Your task to perform on an android device: View the shopping cart on walmart.com. Add macbook pro 15 inch to the cart on walmart.com, then select checkout. Image 0: 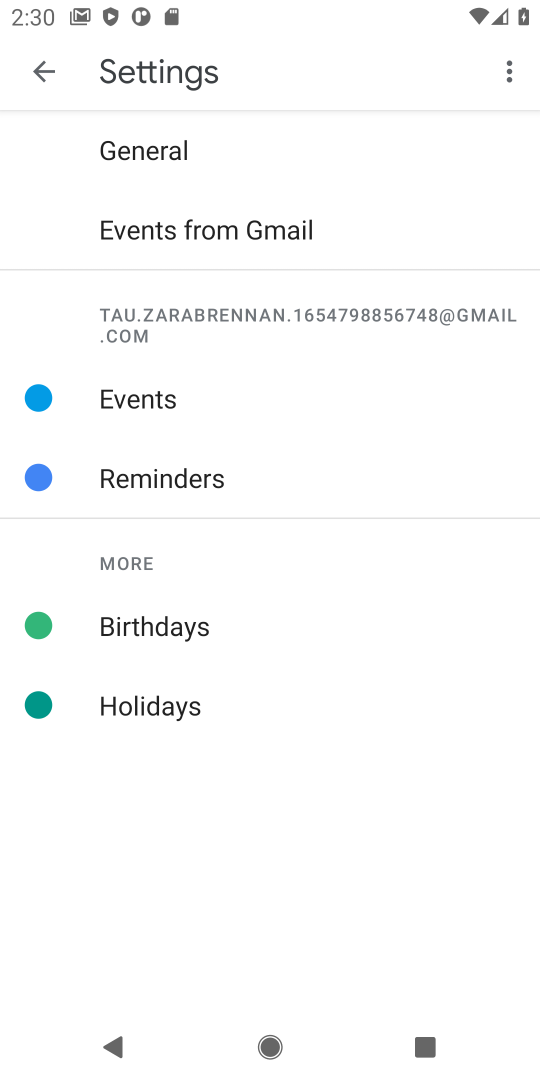
Step 0: press home button
Your task to perform on an android device: View the shopping cart on walmart.com. Add macbook pro 15 inch to the cart on walmart.com, then select checkout. Image 1: 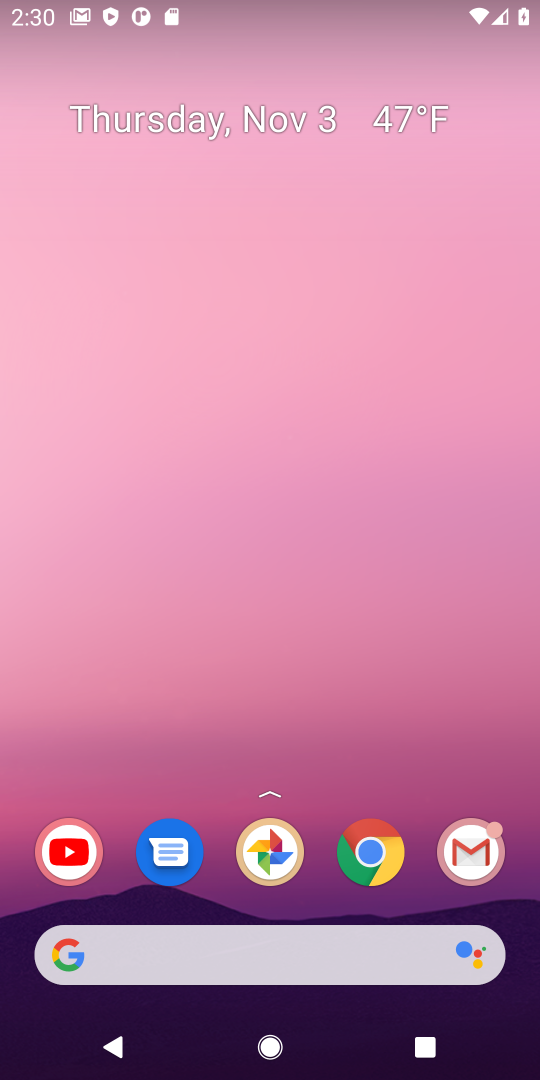
Step 1: click (370, 854)
Your task to perform on an android device: View the shopping cart on walmart.com. Add macbook pro 15 inch to the cart on walmart.com, then select checkout. Image 2: 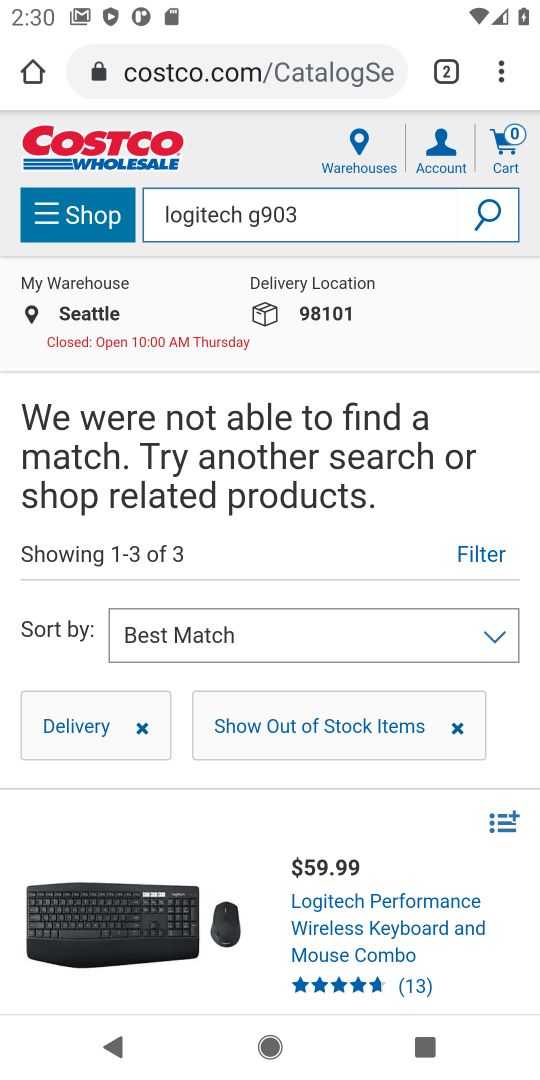
Step 2: click (226, 74)
Your task to perform on an android device: View the shopping cart on walmart.com. Add macbook pro 15 inch to the cart on walmart.com, then select checkout. Image 3: 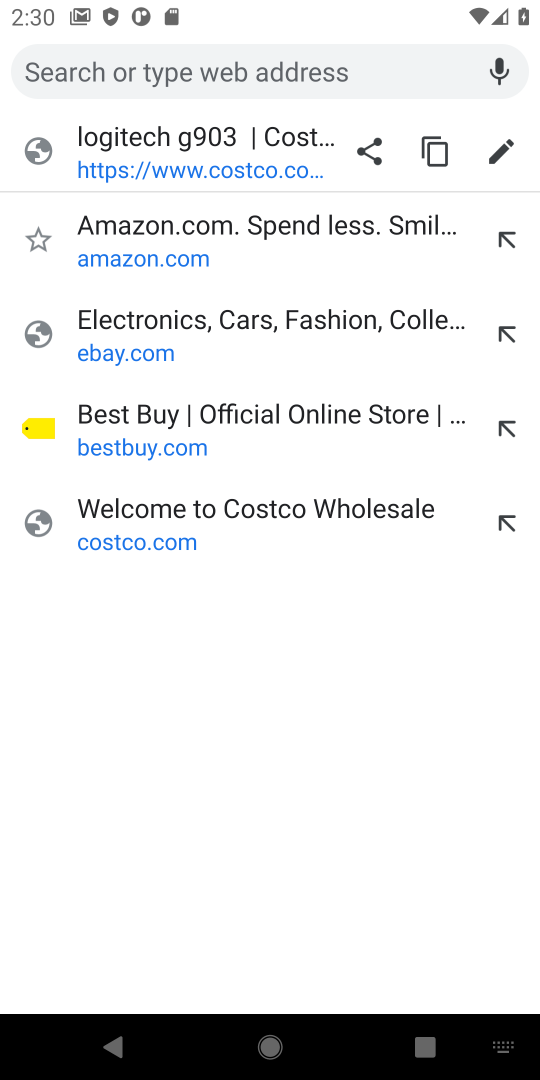
Step 3: type "walmart.com"
Your task to perform on an android device: View the shopping cart on walmart.com. Add macbook pro 15 inch to the cart on walmart.com, then select checkout. Image 4: 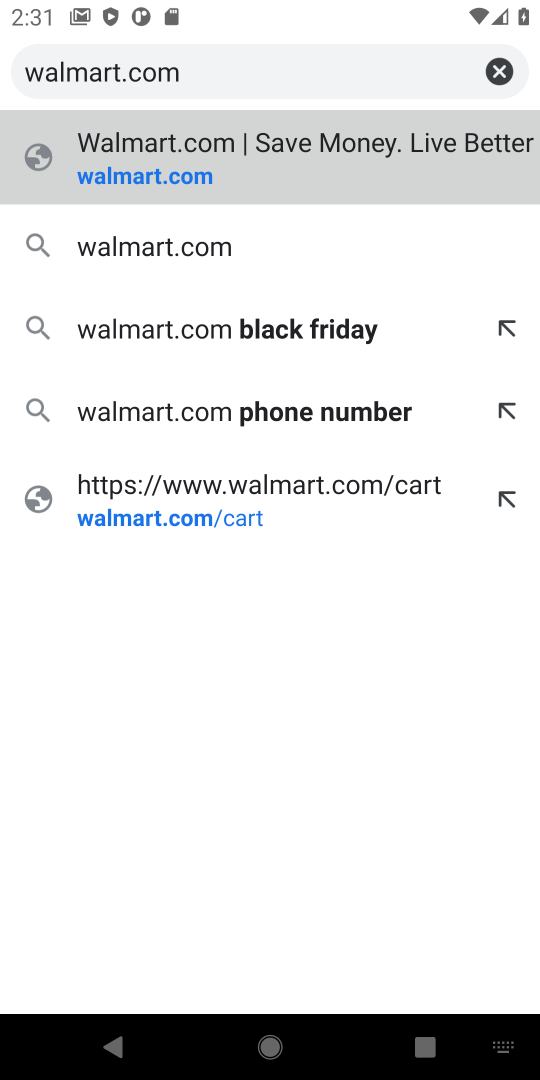
Step 4: click (111, 173)
Your task to perform on an android device: View the shopping cart on walmart.com. Add macbook pro 15 inch to the cart on walmart.com, then select checkout. Image 5: 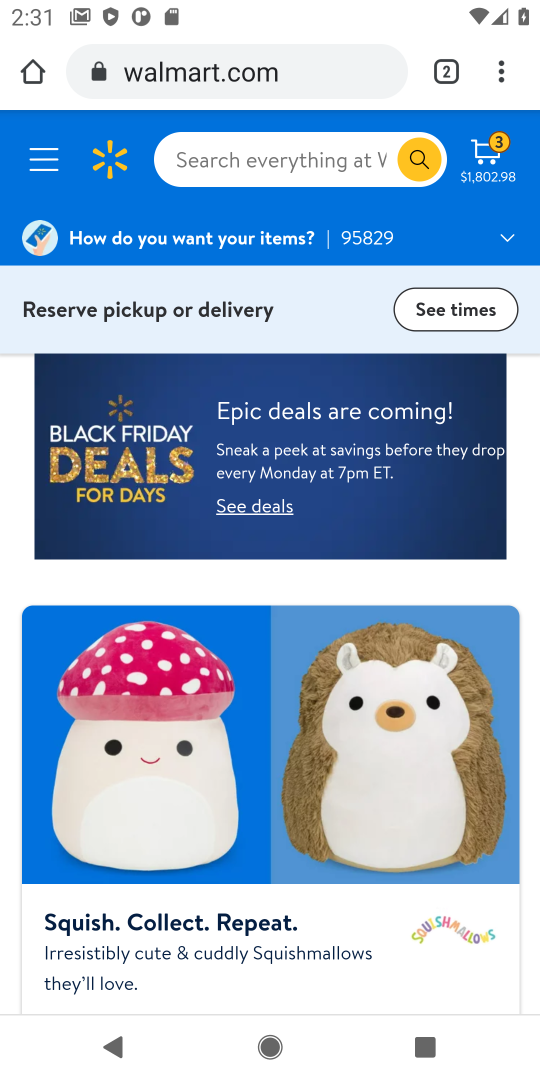
Step 5: click (490, 171)
Your task to perform on an android device: View the shopping cart on walmart.com. Add macbook pro 15 inch to the cart on walmart.com, then select checkout. Image 6: 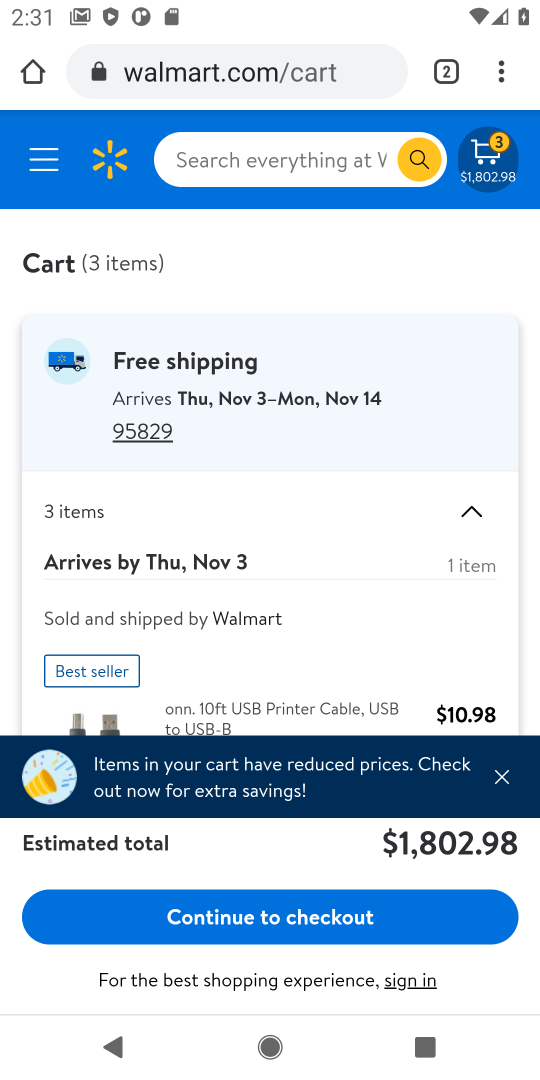
Step 6: click (275, 166)
Your task to perform on an android device: View the shopping cart on walmart.com. Add macbook pro 15 inch to the cart on walmart.com, then select checkout. Image 7: 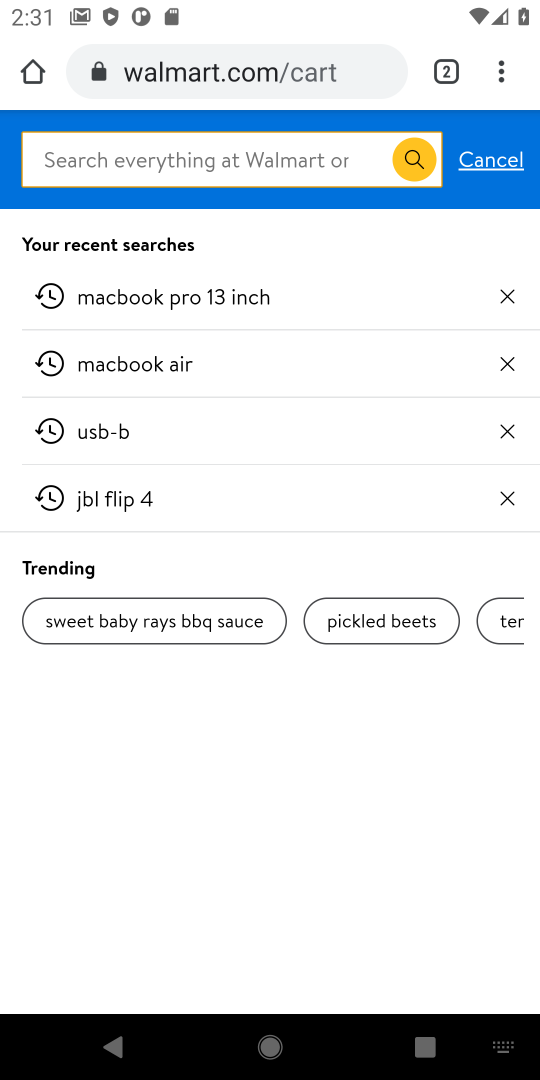
Step 7: type "macbook pro 15 inch"
Your task to perform on an android device: View the shopping cart on walmart.com. Add macbook pro 15 inch to the cart on walmart.com, then select checkout. Image 8: 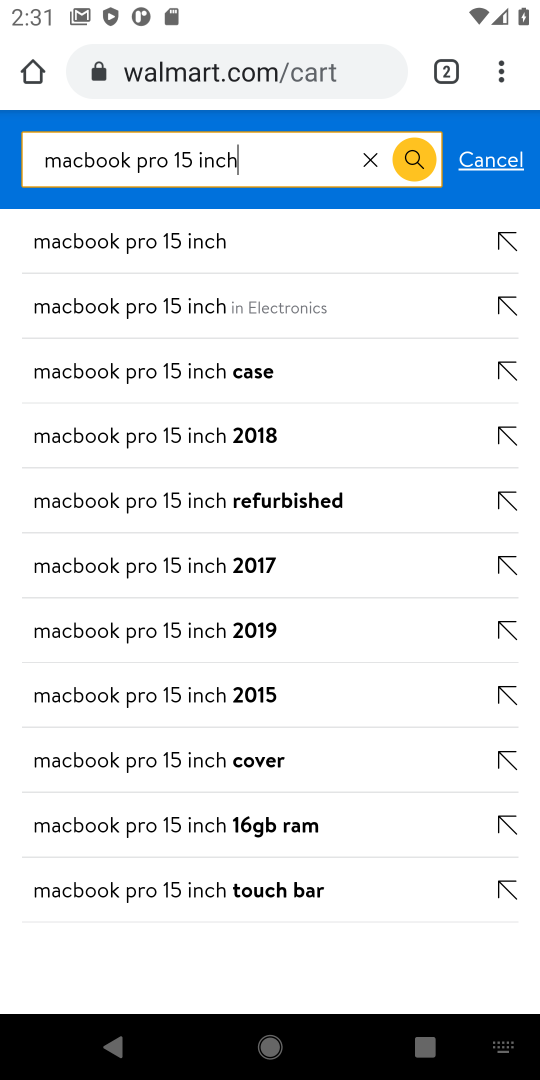
Step 8: click (141, 245)
Your task to perform on an android device: View the shopping cart on walmart.com. Add macbook pro 15 inch to the cart on walmart.com, then select checkout. Image 9: 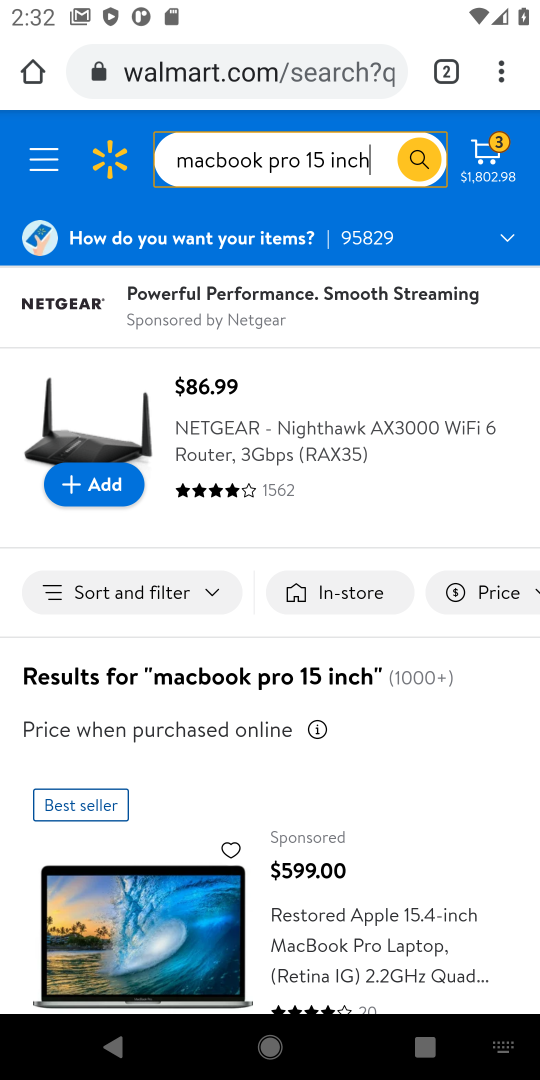
Step 9: drag from (234, 776) to (224, 445)
Your task to perform on an android device: View the shopping cart on walmart.com. Add macbook pro 15 inch to the cart on walmart.com, then select checkout. Image 10: 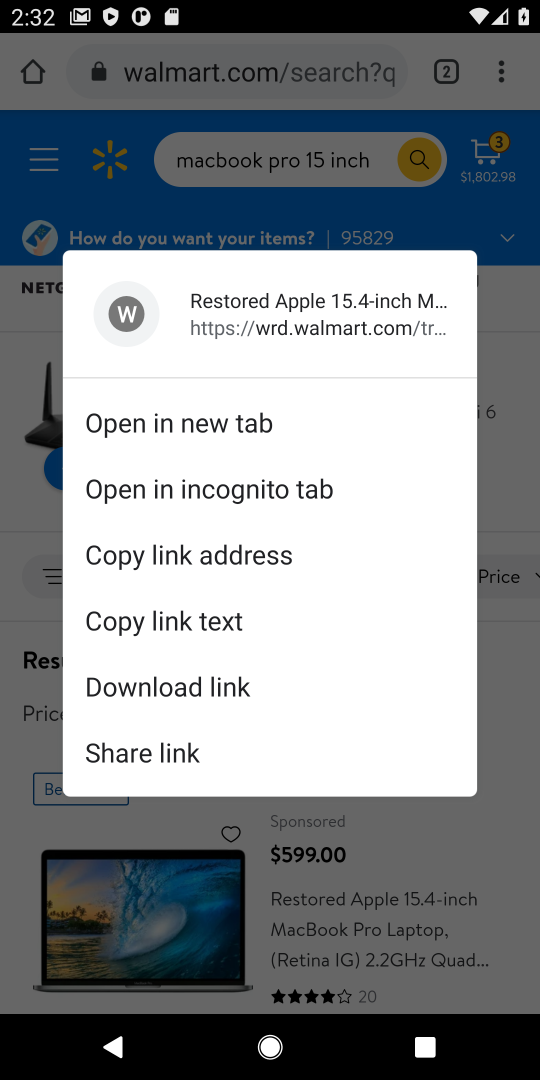
Step 10: click (535, 745)
Your task to perform on an android device: View the shopping cart on walmart.com. Add macbook pro 15 inch to the cart on walmart.com, then select checkout. Image 11: 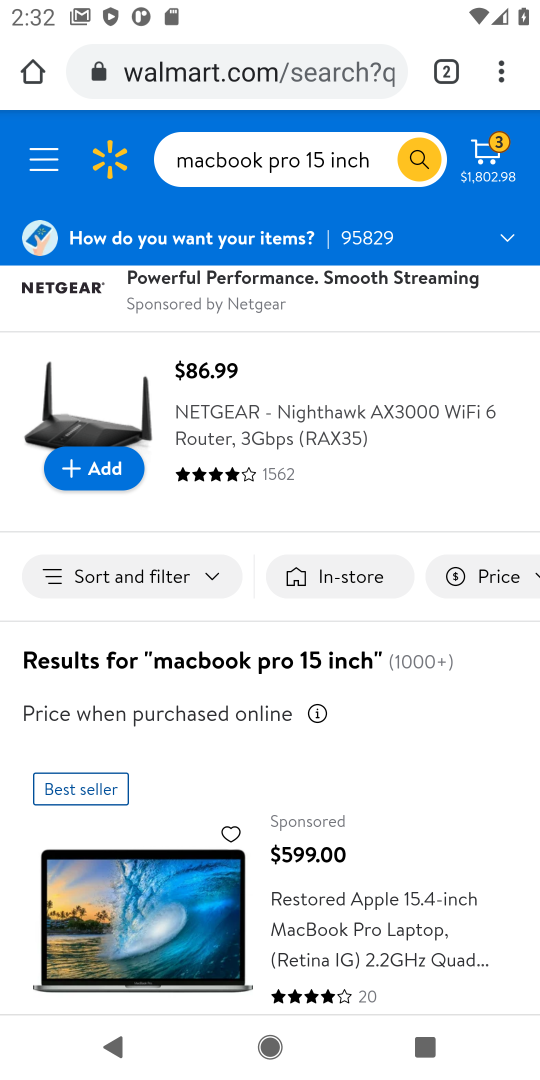
Step 11: drag from (361, 826) to (358, 369)
Your task to perform on an android device: View the shopping cart on walmart.com. Add macbook pro 15 inch to the cart on walmart.com, then select checkout. Image 12: 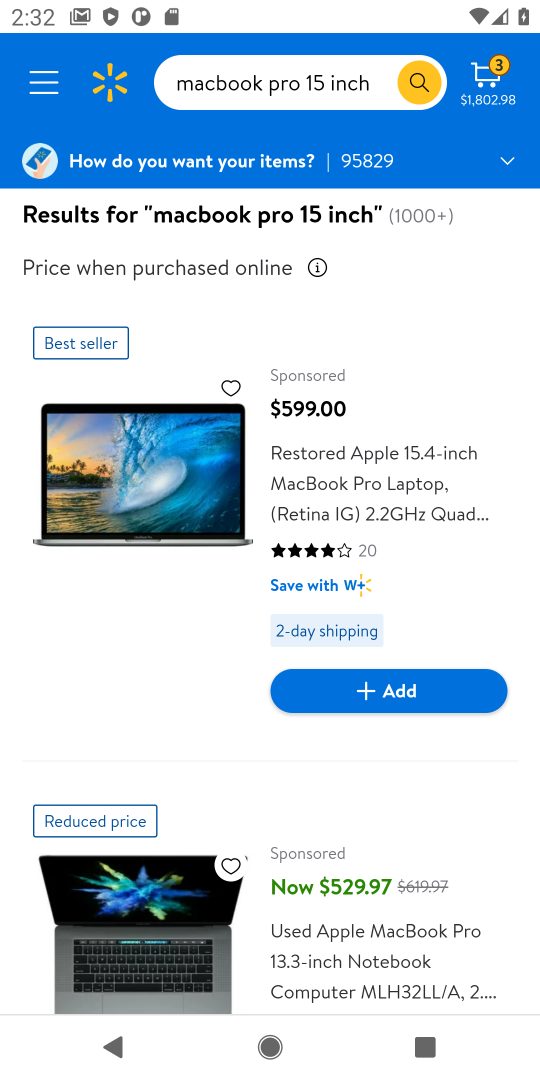
Step 12: drag from (253, 834) to (270, 324)
Your task to perform on an android device: View the shopping cart on walmart.com. Add macbook pro 15 inch to the cart on walmart.com, then select checkout. Image 13: 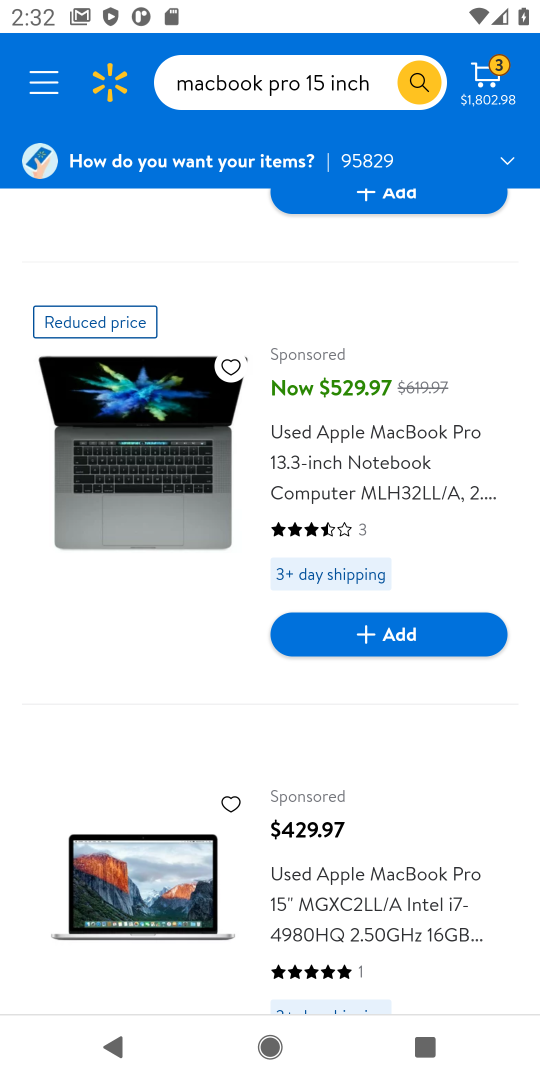
Step 13: drag from (275, 846) to (300, 354)
Your task to perform on an android device: View the shopping cart on walmart.com. Add macbook pro 15 inch to the cart on walmart.com, then select checkout. Image 14: 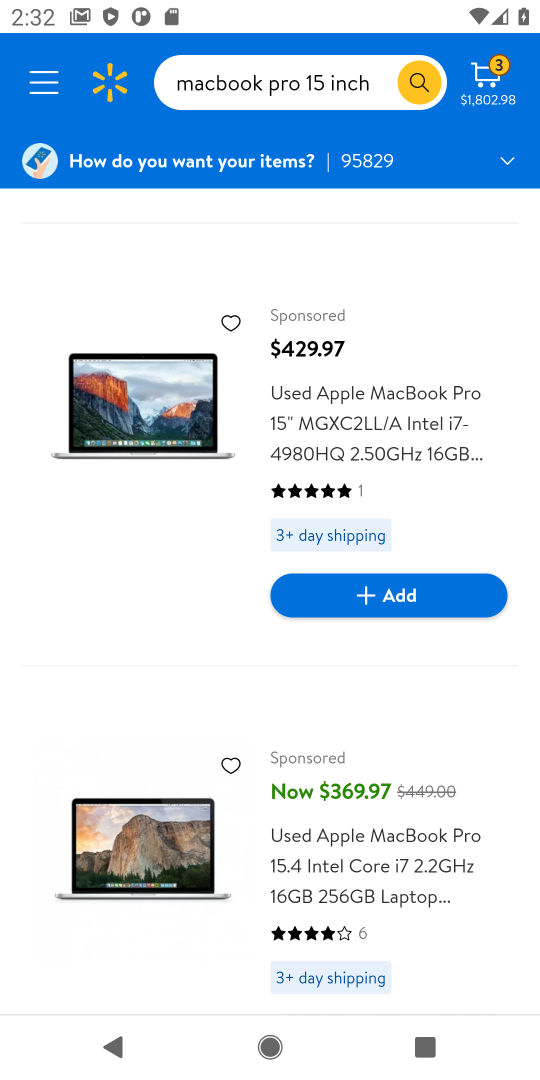
Step 14: drag from (252, 850) to (261, 305)
Your task to perform on an android device: View the shopping cart on walmart.com. Add macbook pro 15 inch to the cart on walmart.com, then select checkout. Image 15: 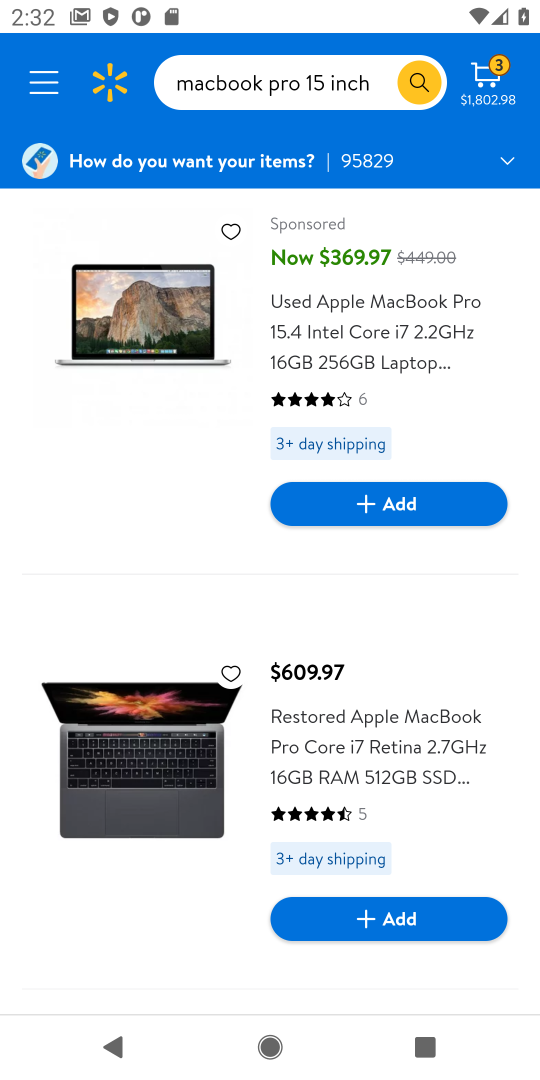
Step 15: drag from (226, 804) to (210, 321)
Your task to perform on an android device: View the shopping cart on walmart.com. Add macbook pro 15 inch to the cart on walmart.com, then select checkout. Image 16: 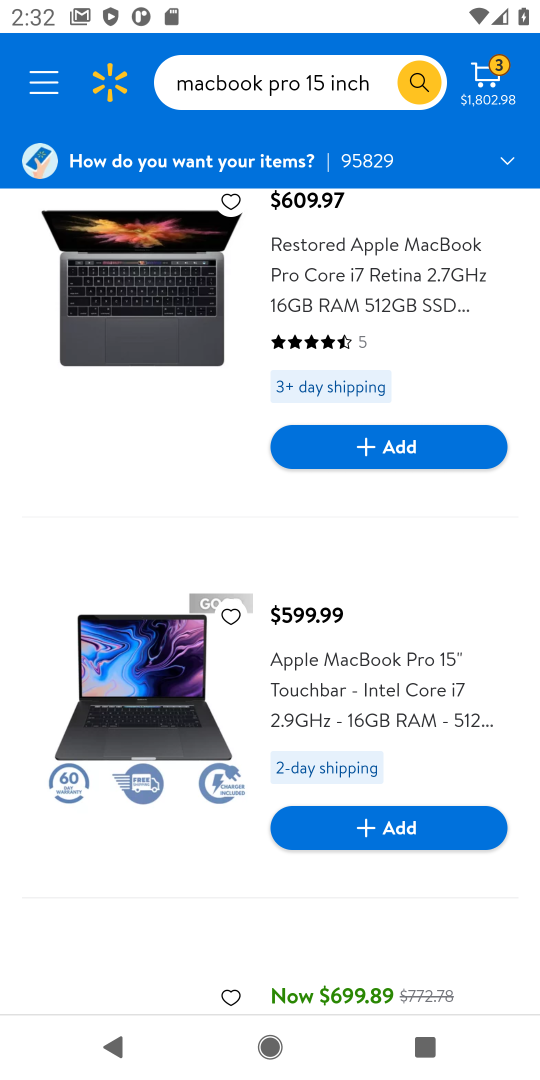
Step 16: click (339, 699)
Your task to perform on an android device: View the shopping cart on walmart.com. Add macbook pro 15 inch to the cart on walmart.com, then select checkout. Image 17: 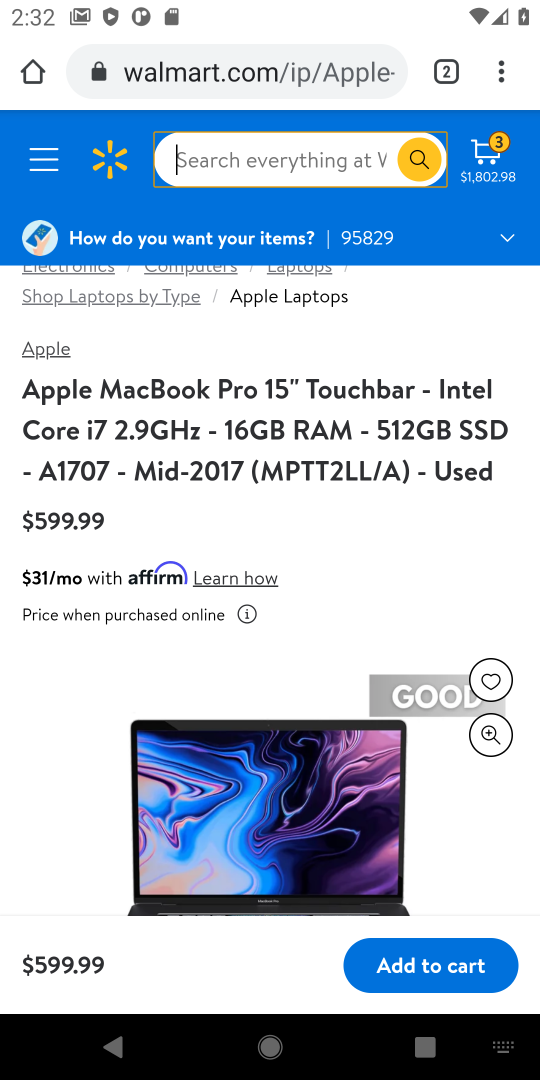
Step 17: click (433, 979)
Your task to perform on an android device: View the shopping cart on walmart.com. Add macbook pro 15 inch to the cart on walmart.com, then select checkout. Image 18: 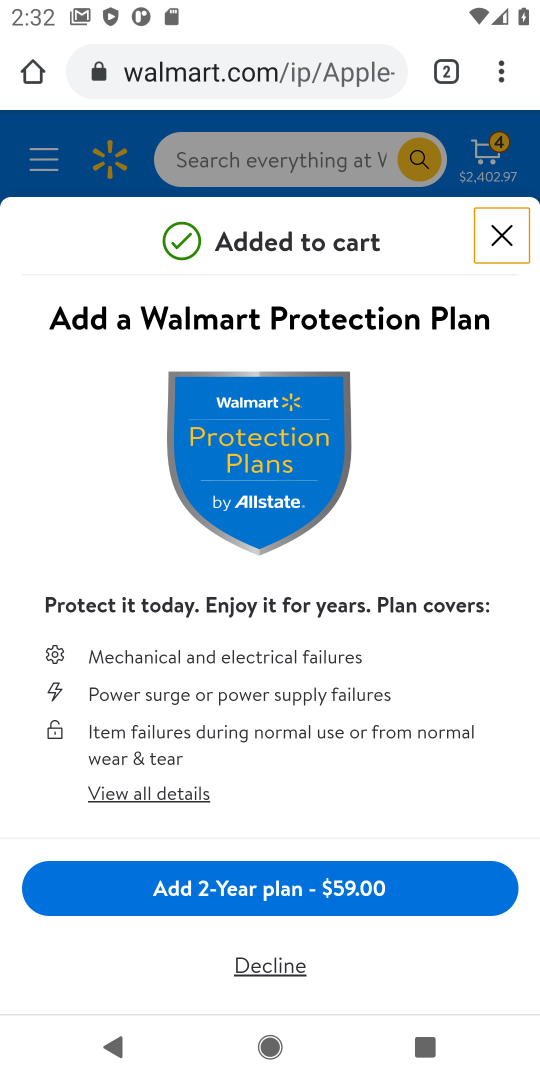
Step 18: click (495, 241)
Your task to perform on an android device: View the shopping cart on walmart.com. Add macbook pro 15 inch to the cart on walmart.com, then select checkout. Image 19: 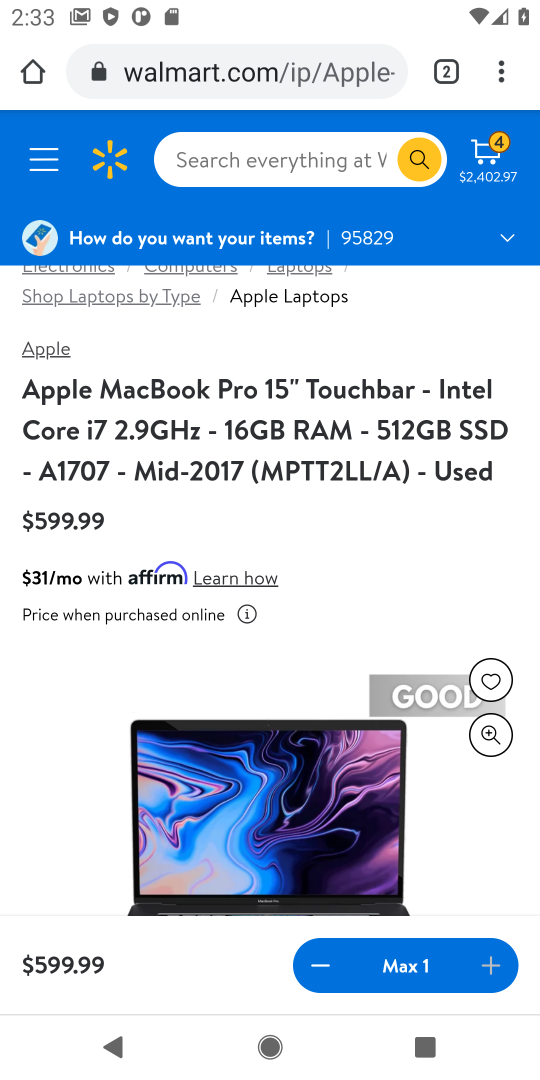
Step 19: click (484, 159)
Your task to perform on an android device: View the shopping cart on walmart.com. Add macbook pro 15 inch to the cart on walmart.com, then select checkout. Image 20: 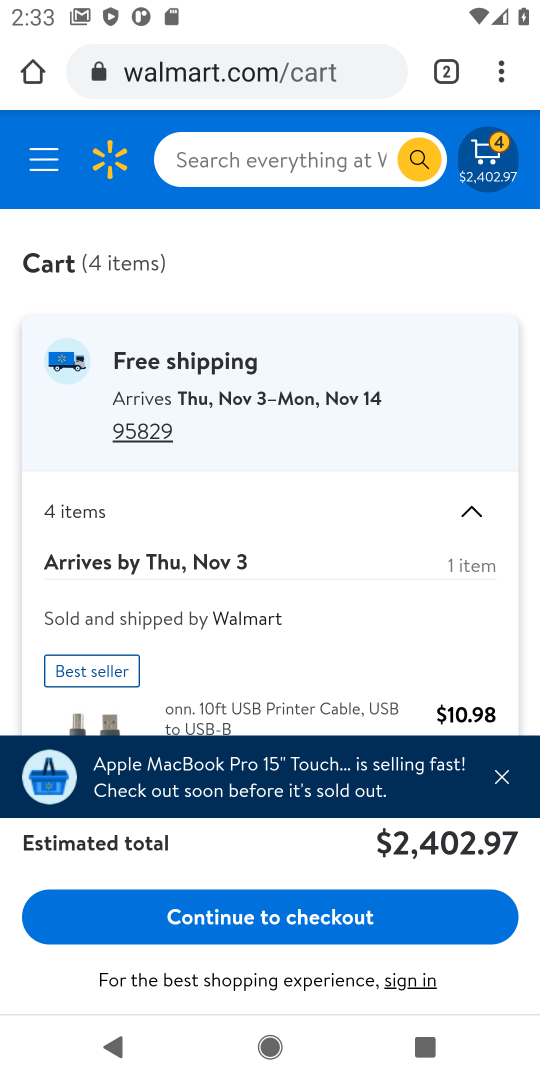
Step 20: click (224, 913)
Your task to perform on an android device: View the shopping cart on walmart.com. Add macbook pro 15 inch to the cart on walmart.com, then select checkout. Image 21: 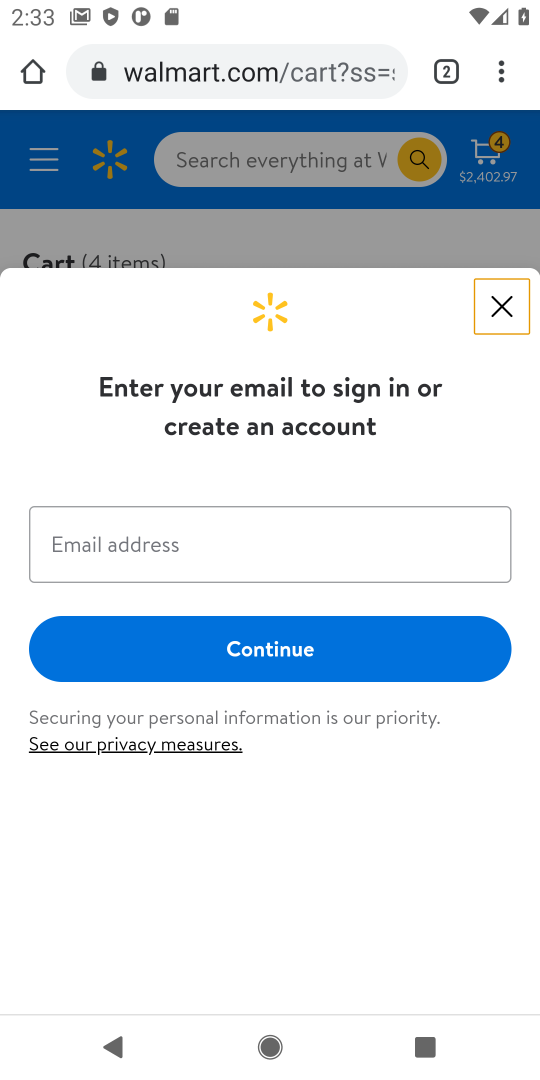
Step 21: task complete